Your task to perform on an android device: set the stopwatch Image 0: 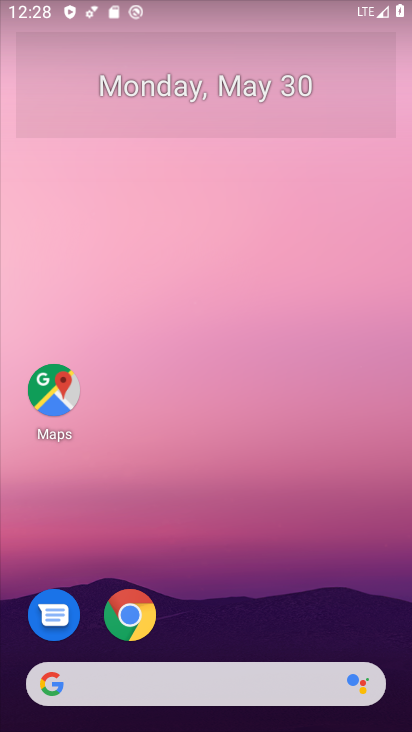
Step 0: drag from (202, 587) to (286, 69)
Your task to perform on an android device: set the stopwatch Image 1: 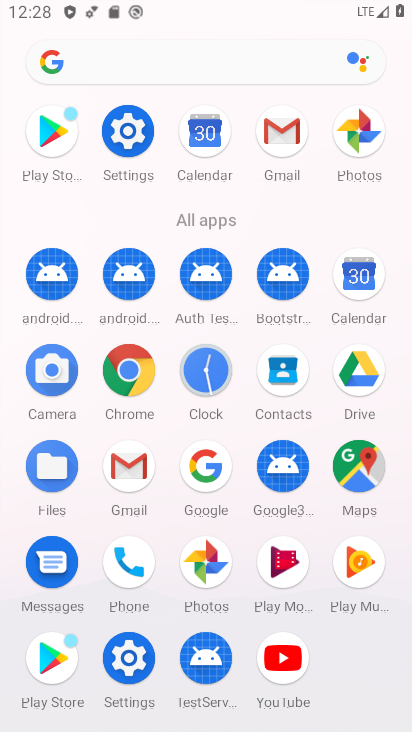
Step 1: click (205, 372)
Your task to perform on an android device: set the stopwatch Image 2: 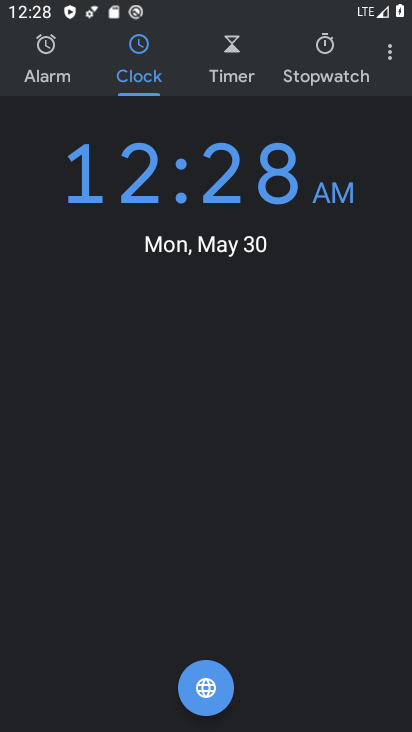
Step 2: click (318, 53)
Your task to perform on an android device: set the stopwatch Image 3: 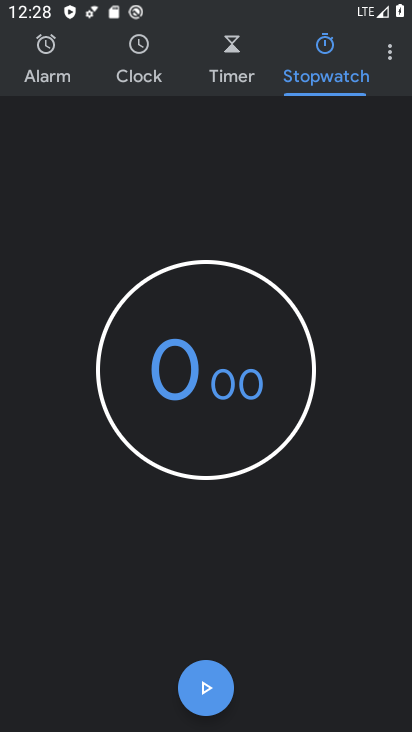
Step 3: click (203, 369)
Your task to perform on an android device: set the stopwatch Image 4: 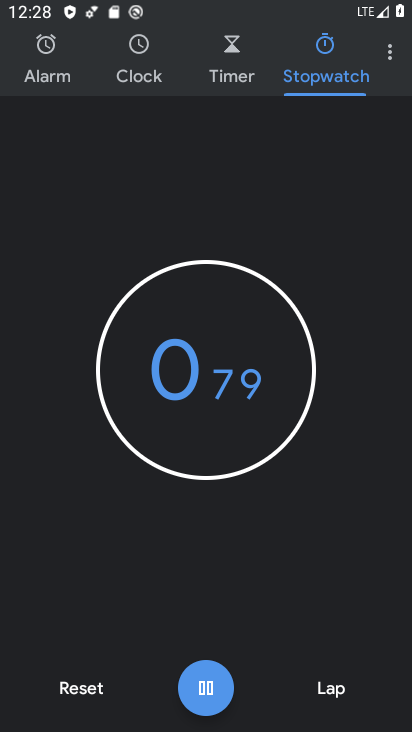
Step 4: click (203, 368)
Your task to perform on an android device: set the stopwatch Image 5: 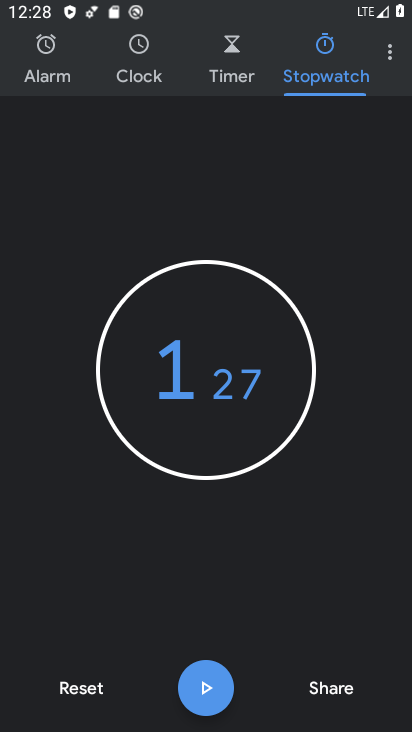
Step 5: task complete